Your task to perform on an android device: turn off picture-in-picture Image 0: 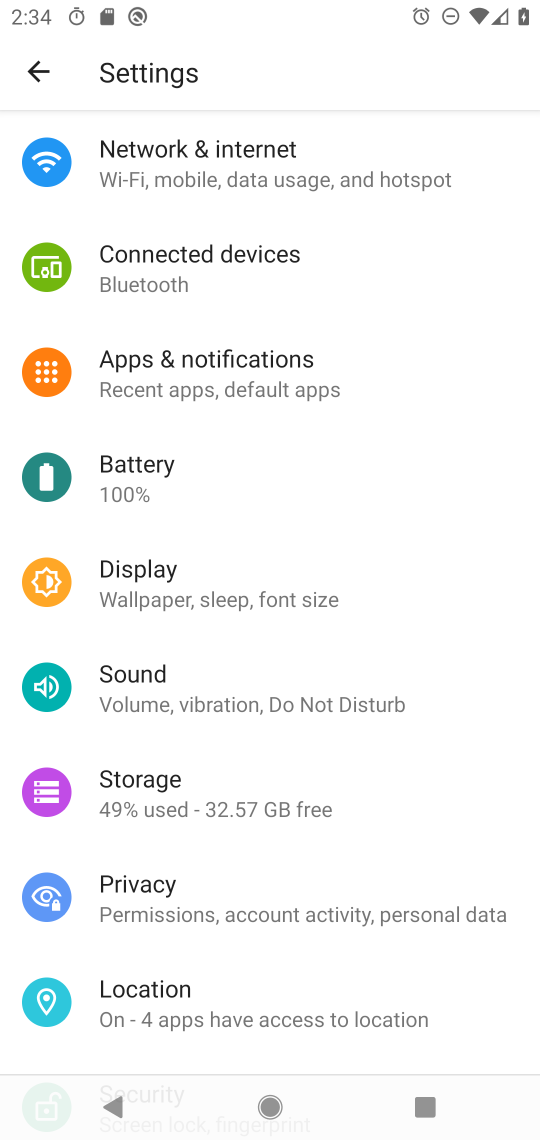
Step 0: click (243, 371)
Your task to perform on an android device: turn off picture-in-picture Image 1: 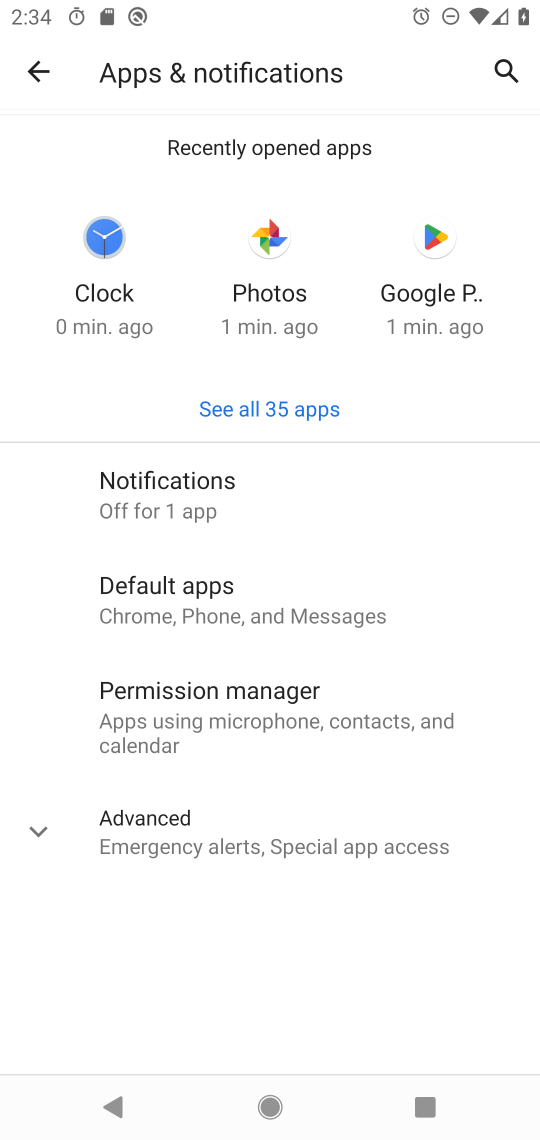
Step 1: click (146, 861)
Your task to perform on an android device: turn off picture-in-picture Image 2: 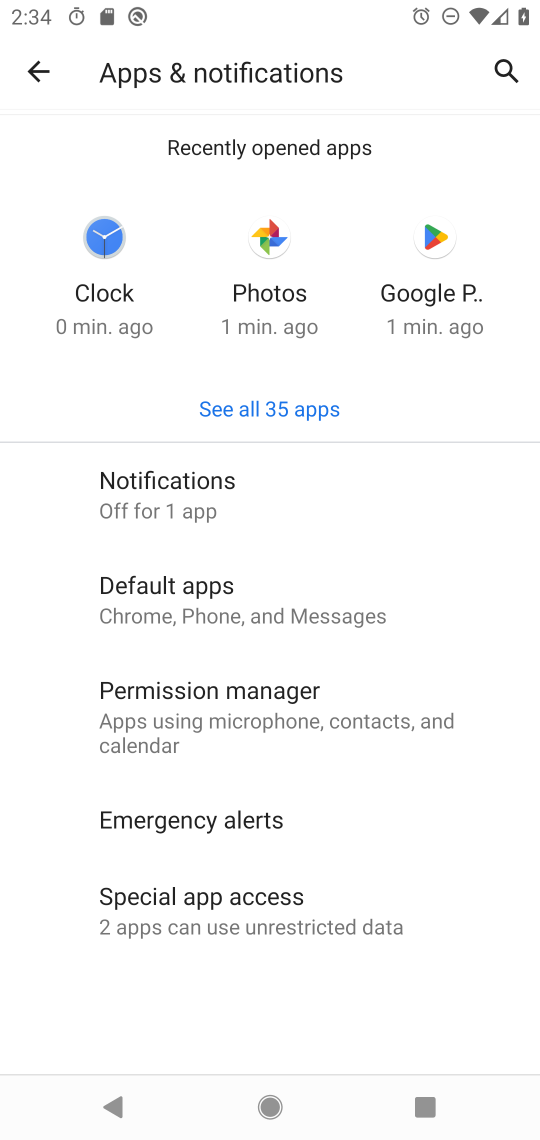
Step 2: click (150, 908)
Your task to perform on an android device: turn off picture-in-picture Image 3: 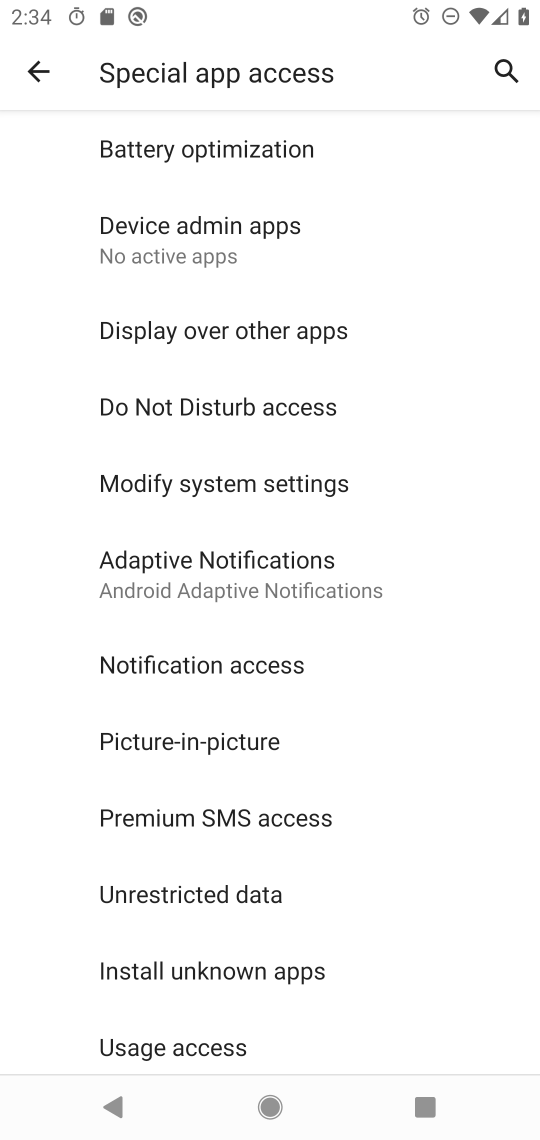
Step 3: click (174, 736)
Your task to perform on an android device: turn off picture-in-picture Image 4: 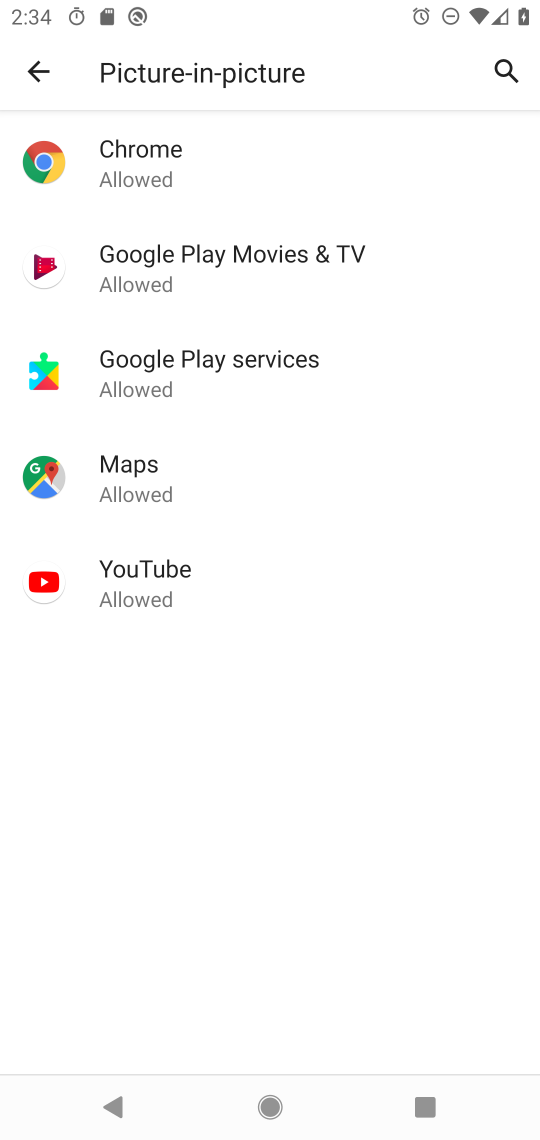
Step 4: click (174, 736)
Your task to perform on an android device: turn off picture-in-picture Image 5: 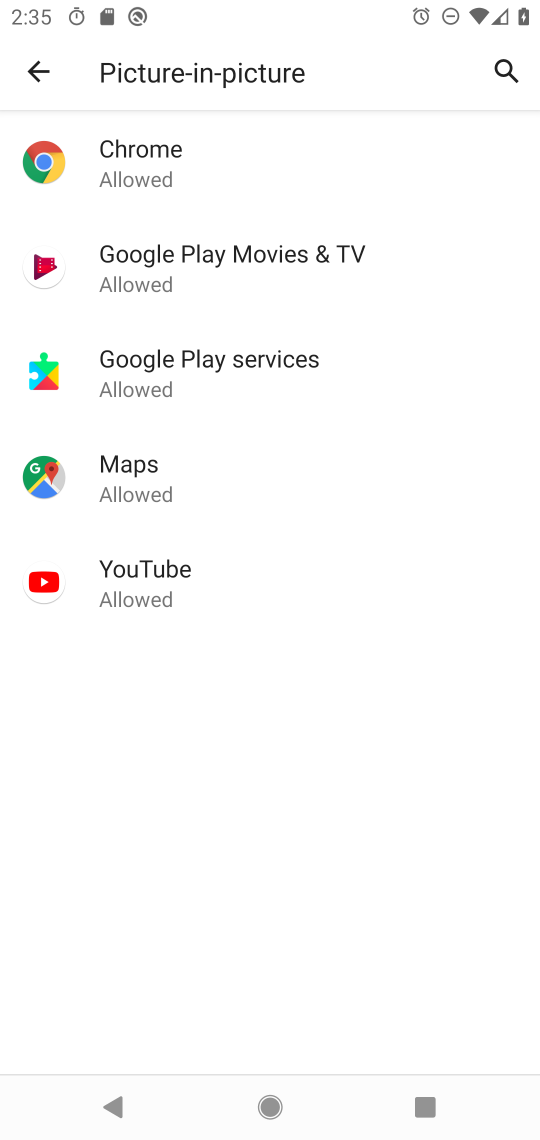
Step 5: click (113, 590)
Your task to perform on an android device: turn off picture-in-picture Image 6: 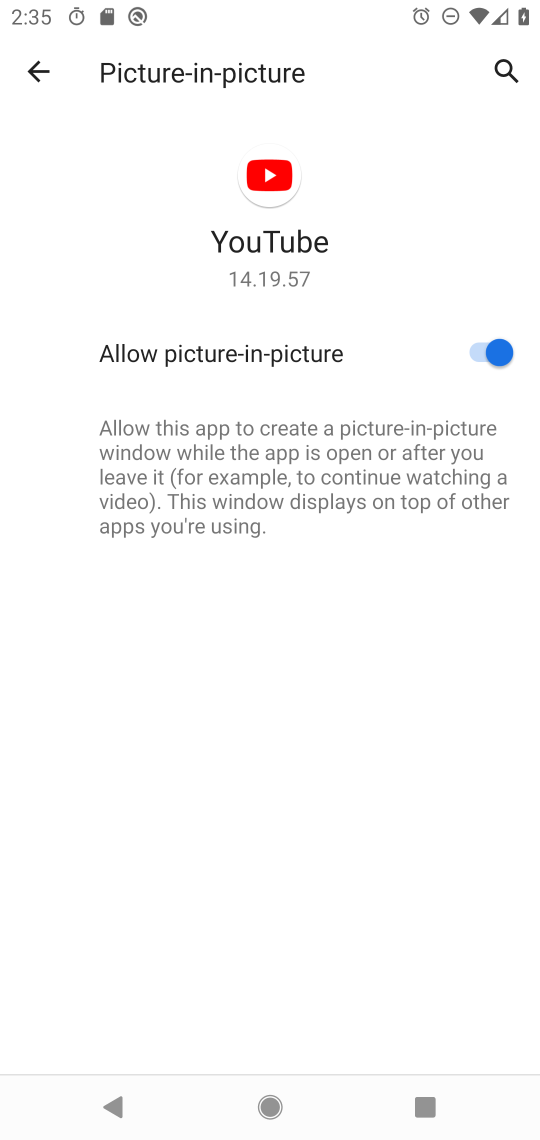
Step 6: click (484, 349)
Your task to perform on an android device: turn off picture-in-picture Image 7: 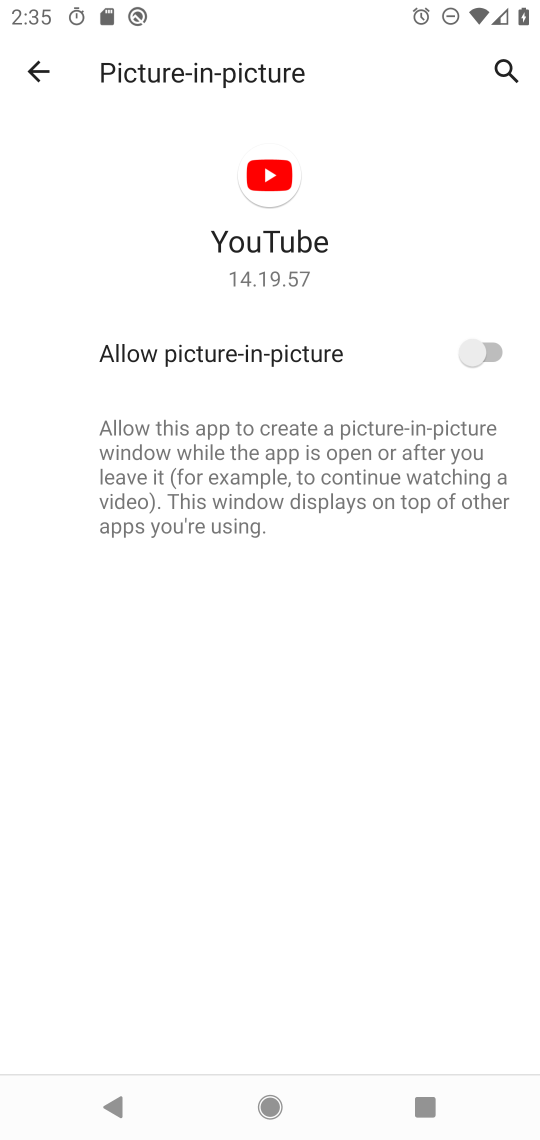
Step 7: task complete